Your task to perform on an android device: search for starred emails in the gmail app Image 0: 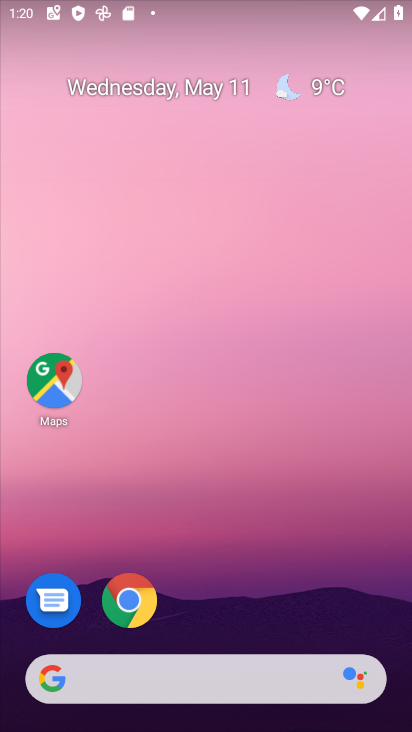
Step 0: drag from (205, 717) to (237, 167)
Your task to perform on an android device: search for starred emails in the gmail app Image 1: 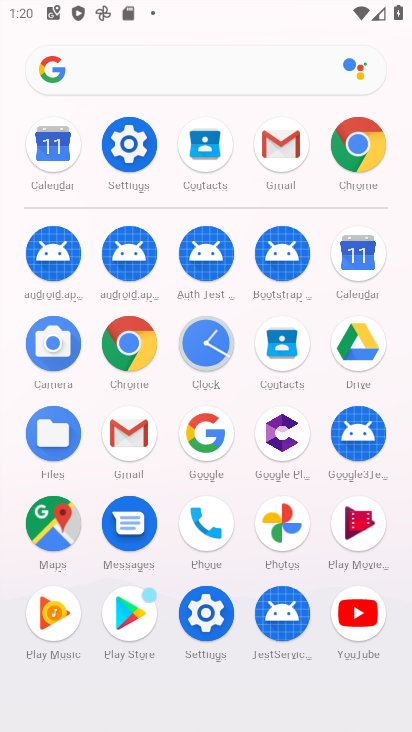
Step 1: click (284, 147)
Your task to perform on an android device: search for starred emails in the gmail app Image 2: 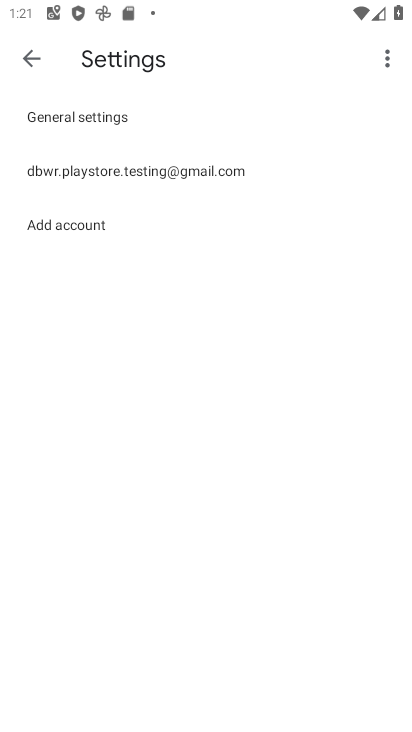
Step 2: click (28, 52)
Your task to perform on an android device: search for starred emails in the gmail app Image 3: 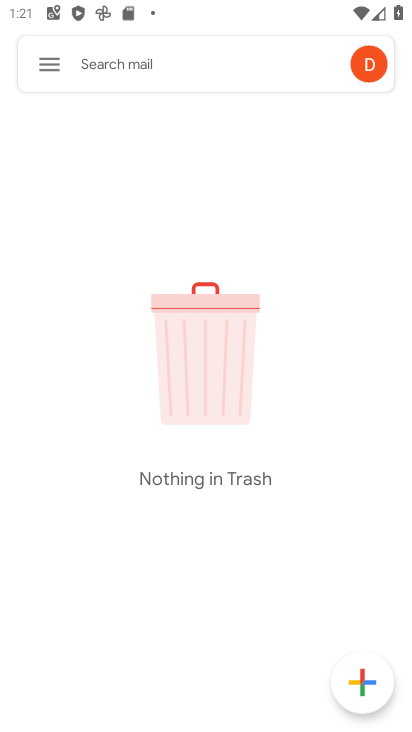
Step 3: click (51, 69)
Your task to perform on an android device: search for starred emails in the gmail app Image 4: 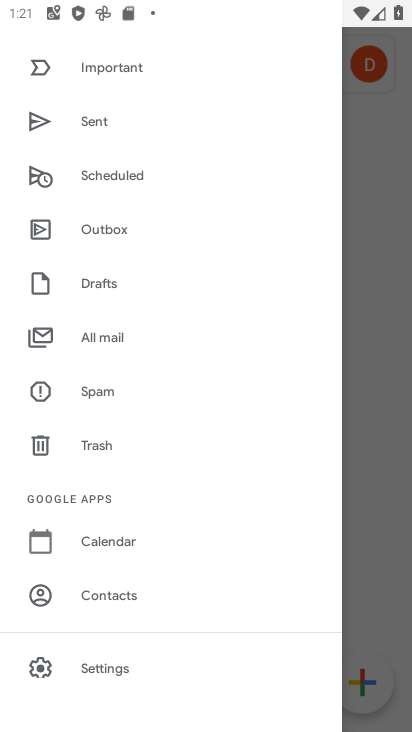
Step 4: drag from (244, 168) to (206, 549)
Your task to perform on an android device: search for starred emails in the gmail app Image 5: 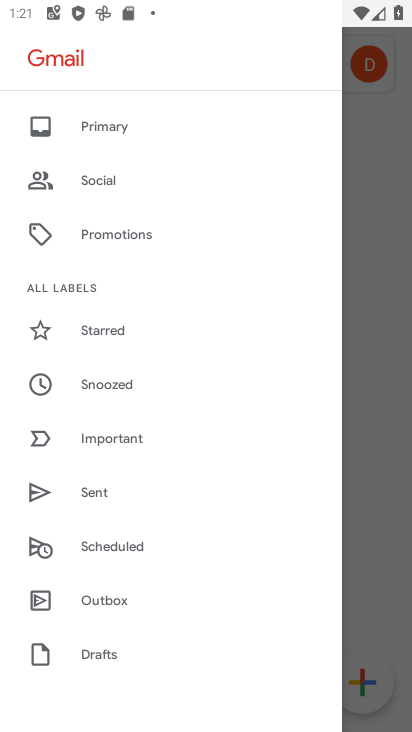
Step 5: click (141, 326)
Your task to perform on an android device: search for starred emails in the gmail app Image 6: 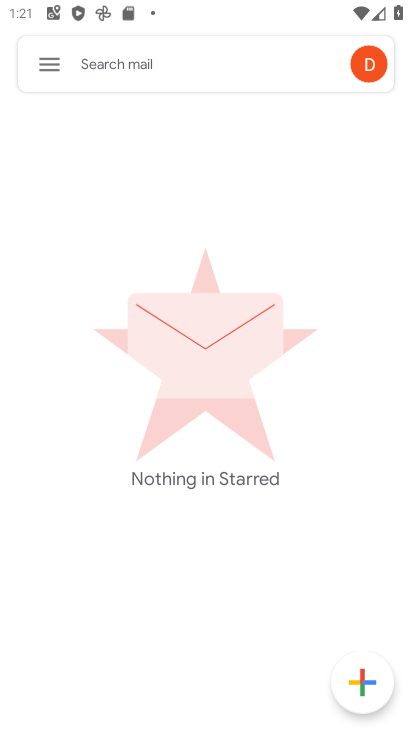
Step 6: task complete